Your task to perform on an android device: toggle sleep mode Image 0: 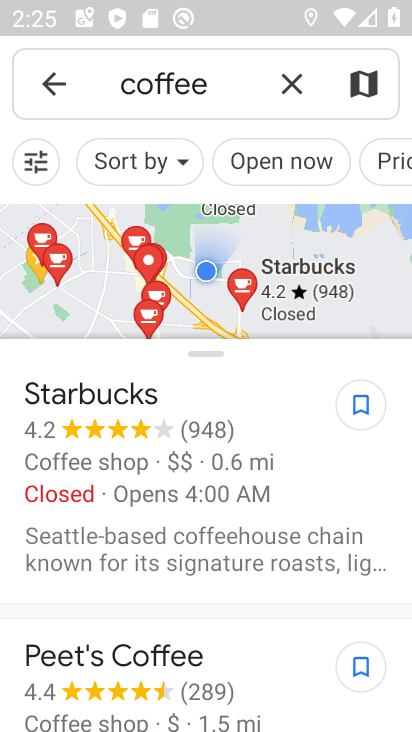
Step 0: press home button
Your task to perform on an android device: toggle sleep mode Image 1: 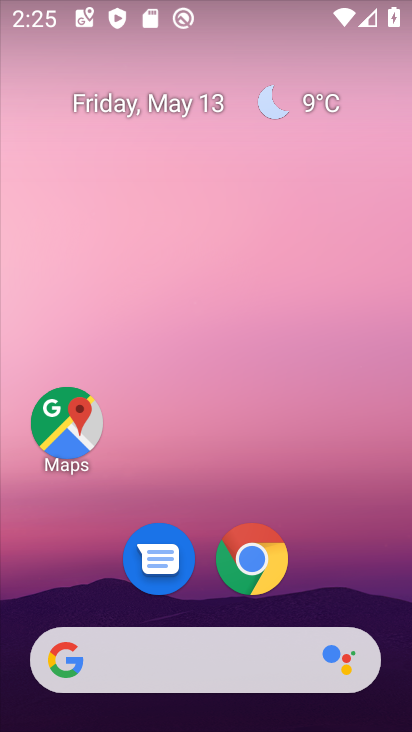
Step 1: drag from (312, 591) to (274, 61)
Your task to perform on an android device: toggle sleep mode Image 2: 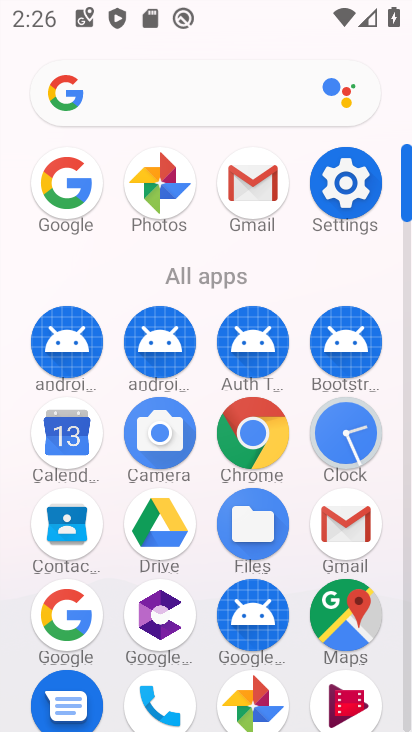
Step 2: click (342, 195)
Your task to perform on an android device: toggle sleep mode Image 3: 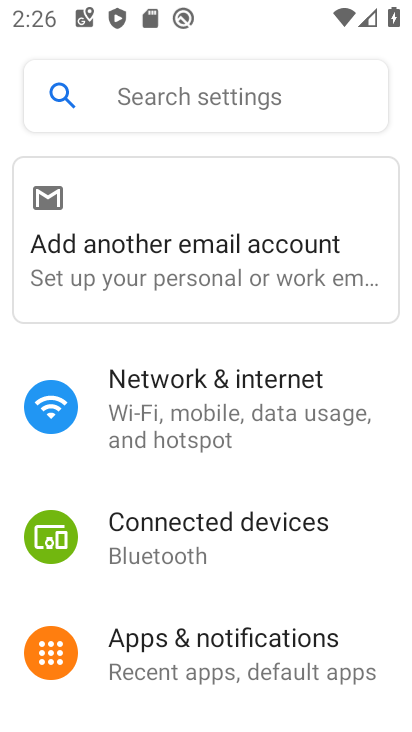
Step 3: task complete